Your task to perform on an android device: turn on improve location accuracy Image 0: 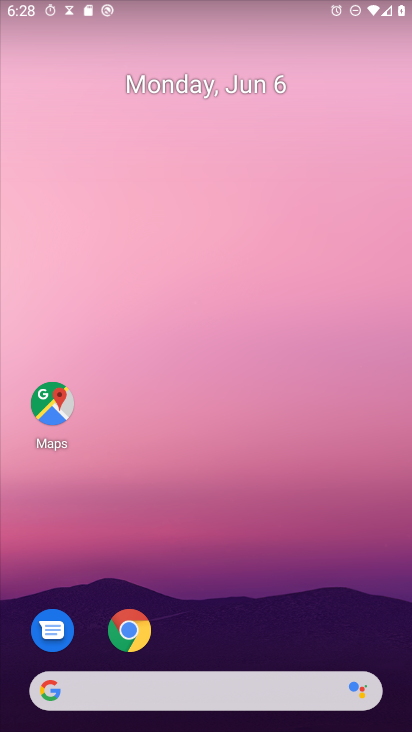
Step 0: drag from (274, 536) to (200, 38)
Your task to perform on an android device: turn on improve location accuracy Image 1: 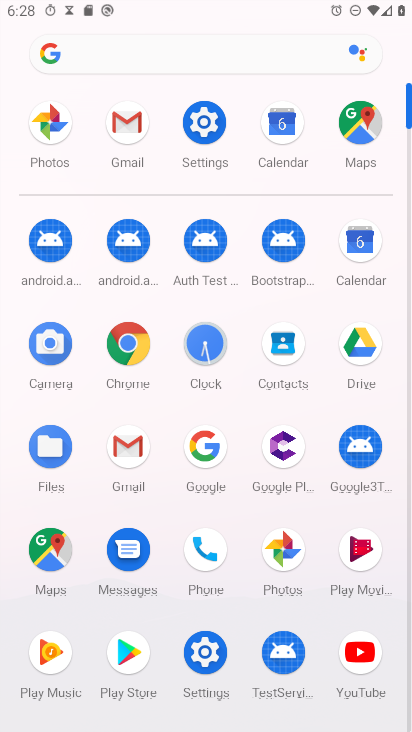
Step 1: click (212, 139)
Your task to perform on an android device: turn on improve location accuracy Image 2: 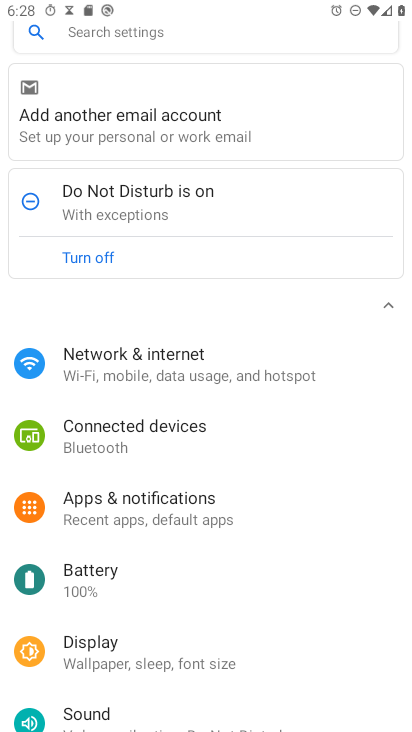
Step 2: drag from (159, 642) to (185, 237)
Your task to perform on an android device: turn on improve location accuracy Image 3: 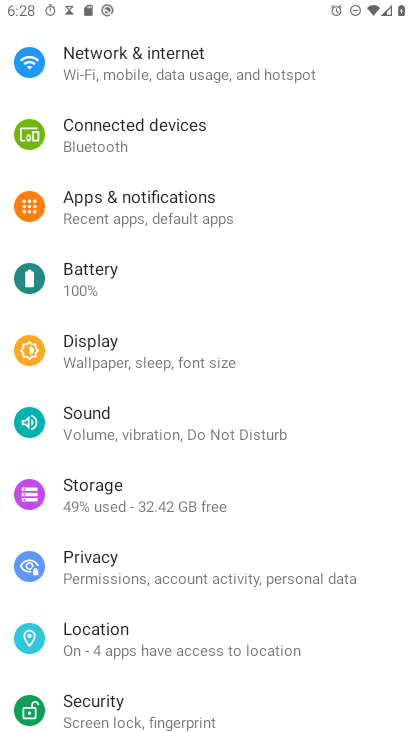
Step 3: click (188, 647)
Your task to perform on an android device: turn on improve location accuracy Image 4: 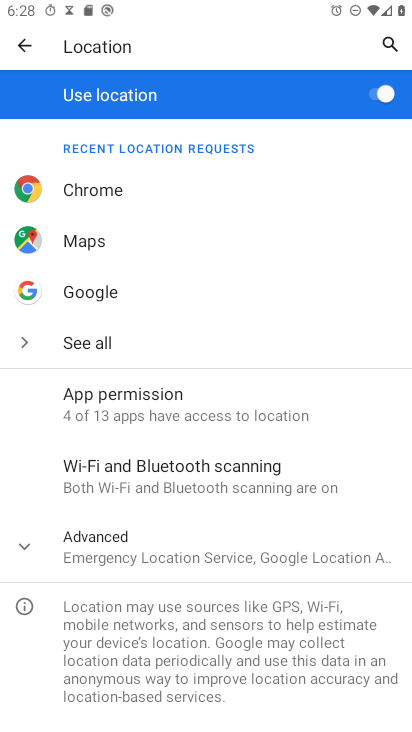
Step 4: click (204, 530)
Your task to perform on an android device: turn on improve location accuracy Image 5: 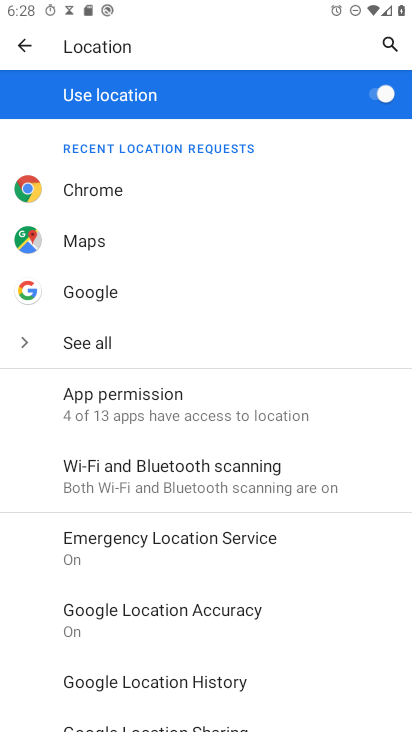
Step 5: click (249, 611)
Your task to perform on an android device: turn on improve location accuracy Image 6: 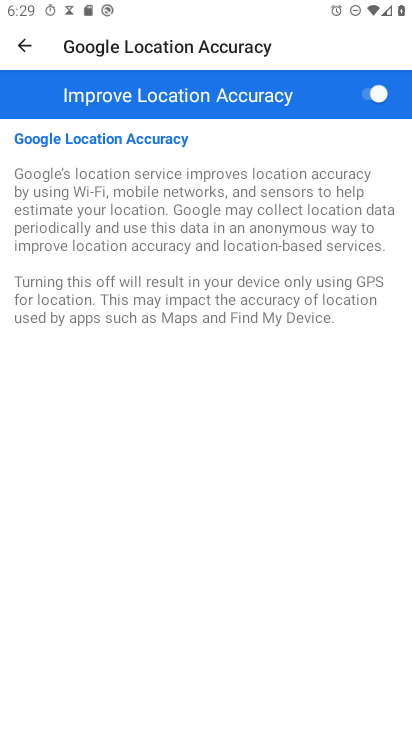
Step 6: task complete